Your task to perform on an android device: Search for seafood restaurants on Google Maps Image 0: 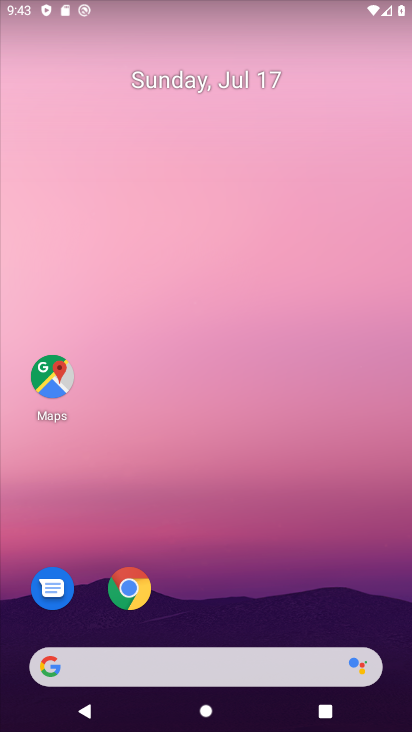
Step 0: drag from (170, 543) to (388, 0)
Your task to perform on an android device: Search for seafood restaurants on Google Maps Image 1: 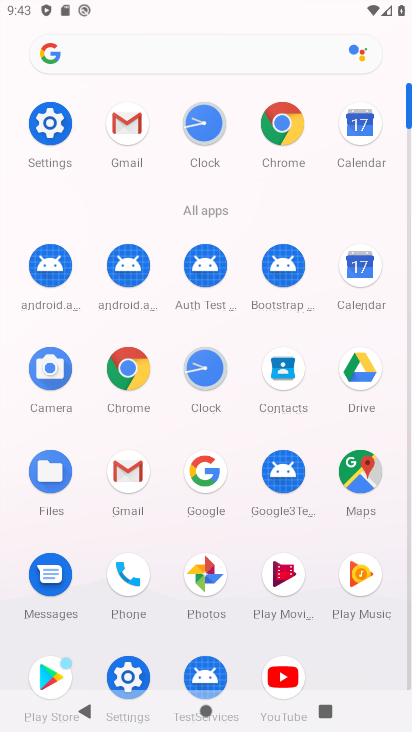
Step 1: click (348, 471)
Your task to perform on an android device: Search for seafood restaurants on Google Maps Image 2: 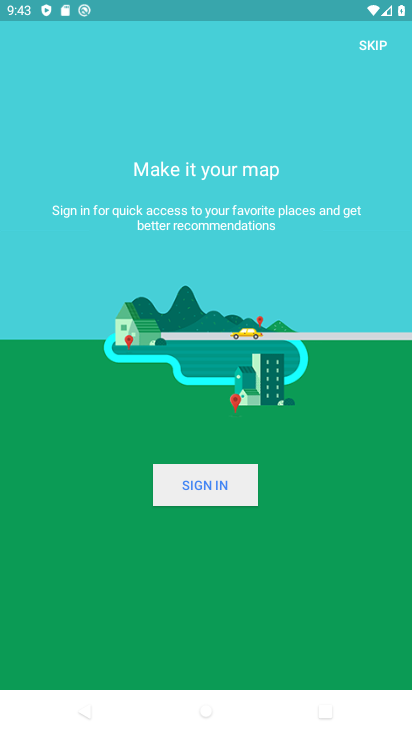
Step 2: click (379, 38)
Your task to perform on an android device: Search for seafood restaurants on Google Maps Image 3: 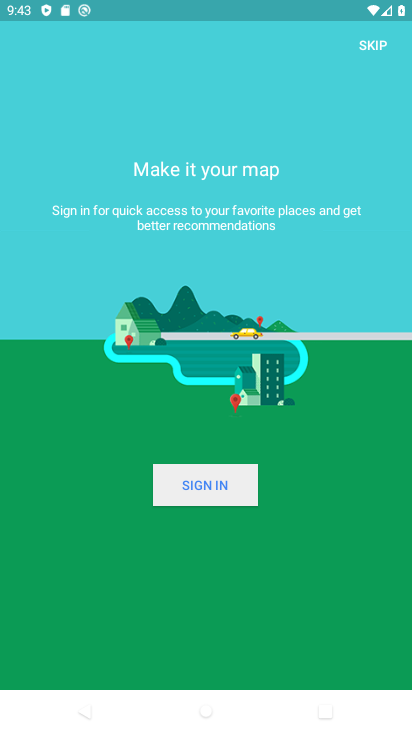
Step 3: click (372, 41)
Your task to perform on an android device: Search for seafood restaurants on Google Maps Image 4: 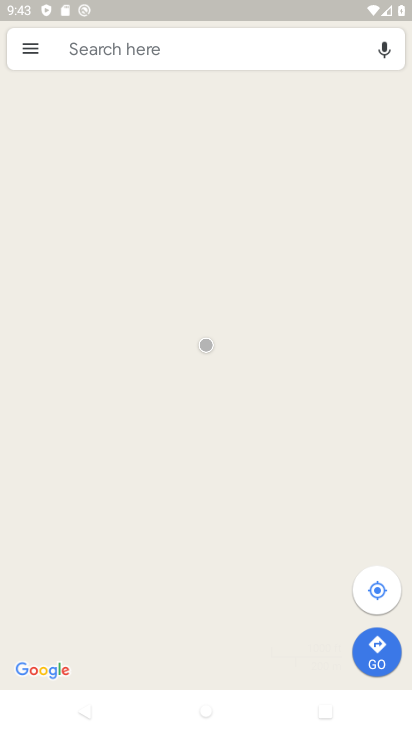
Step 4: click (123, 62)
Your task to perform on an android device: Search for seafood restaurants on Google Maps Image 5: 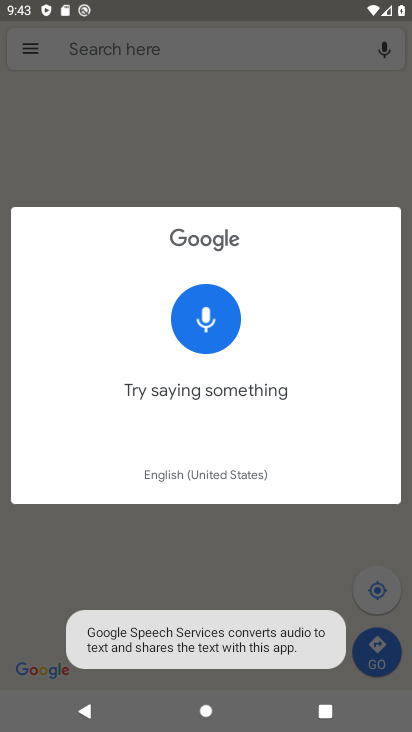
Step 5: click (130, 58)
Your task to perform on an android device: Search for seafood restaurants on Google Maps Image 6: 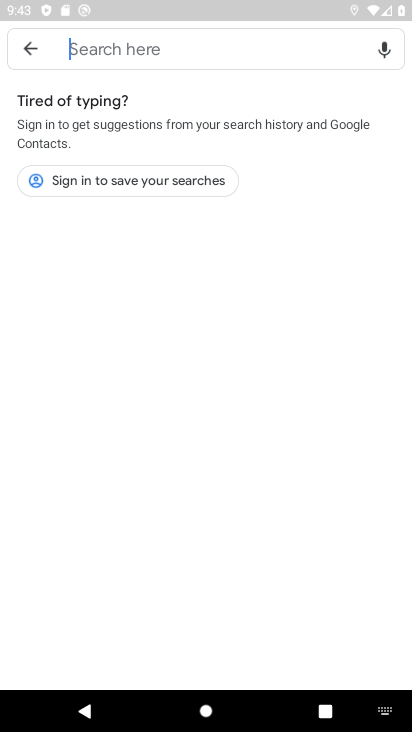
Step 6: type "seafood restaurants"
Your task to perform on an android device: Search for seafood restaurants on Google Maps Image 7: 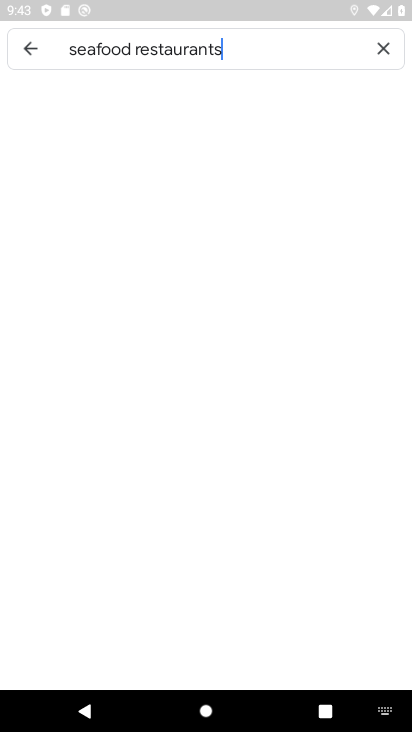
Step 7: type ""
Your task to perform on an android device: Search for seafood restaurants on Google Maps Image 8: 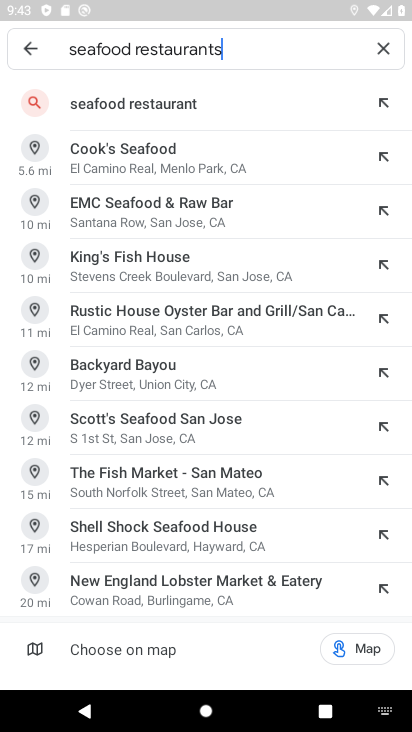
Step 8: click (120, 100)
Your task to perform on an android device: Search for seafood restaurants on Google Maps Image 9: 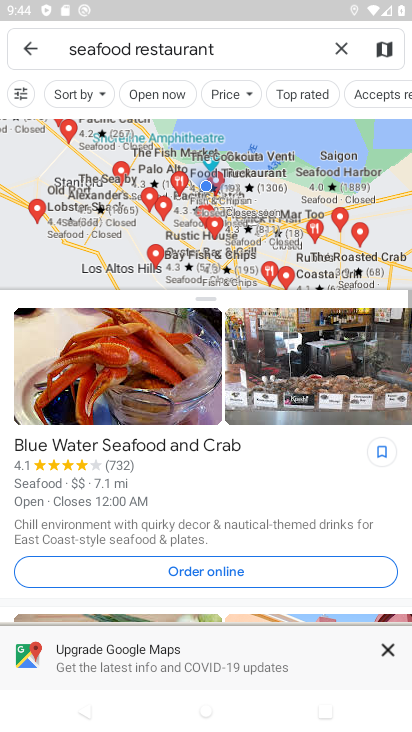
Step 9: task complete